Your task to perform on an android device: Go to ESPN.com Image 0: 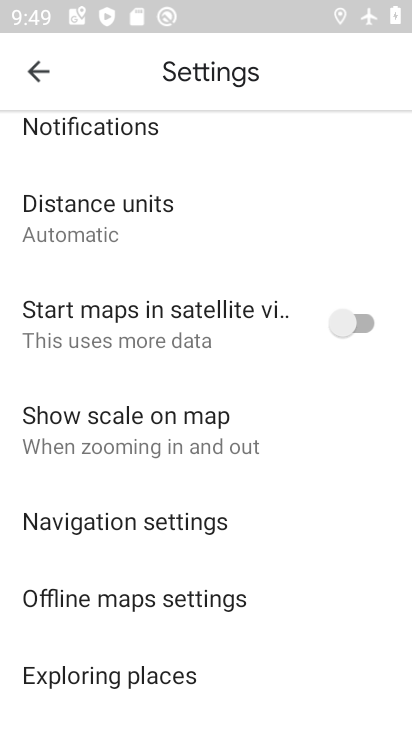
Step 0: press home button
Your task to perform on an android device: Go to ESPN.com Image 1: 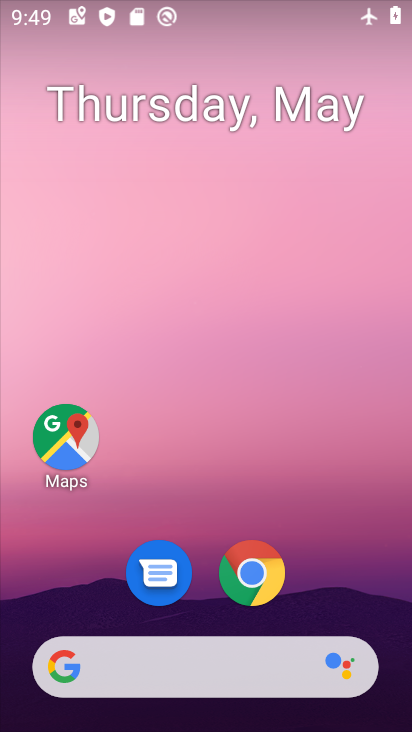
Step 1: click (232, 572)
Your task to perform on an android device: Go to ESPN.com Image 2: 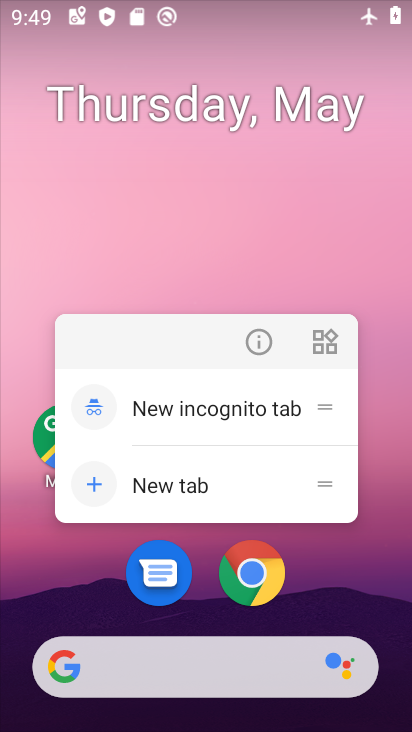
Step 2: click (260, 572)
Your task to perform on an android device: Go to ESPN.com Image 3: 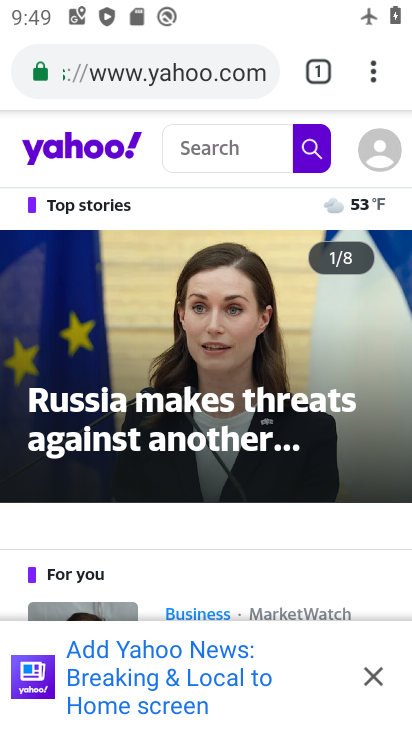
Step 3: click (307, 65)
Your task to perform on an android device: Go to ESPN.com Image 4: 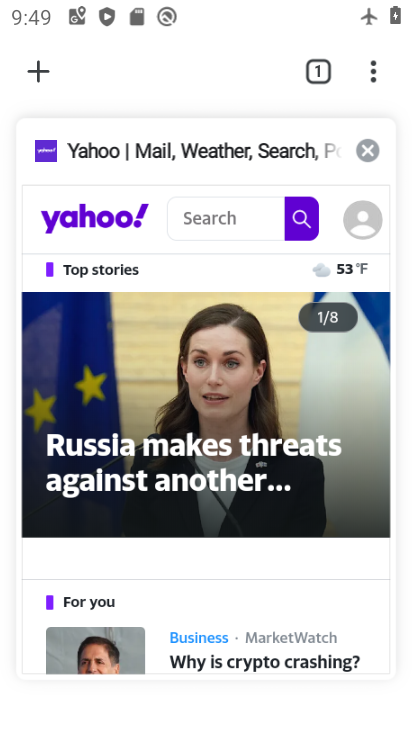
Step 4: click (43, 78)
Your task to perform on an android device: Go to ESPN.com Image 5: 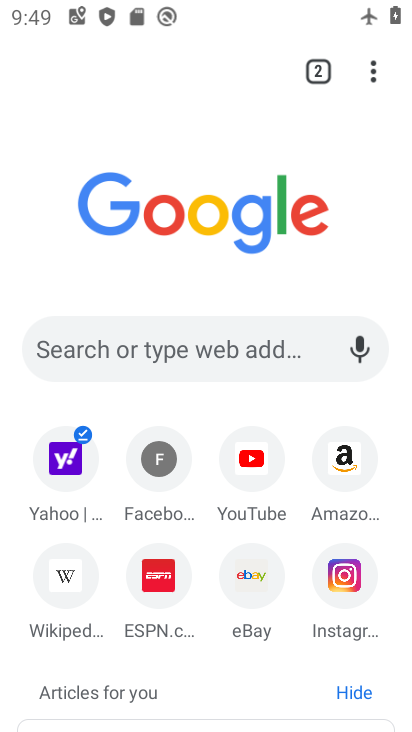
Step 5: click (142, 582)
Your task to perform on an android device: Go to ESPN.com Image 6: 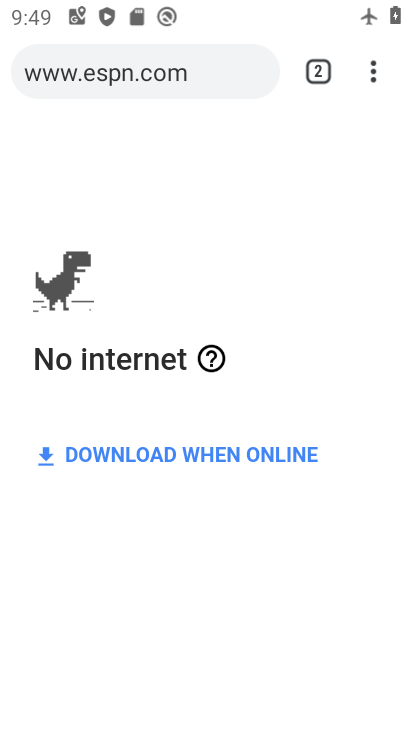
Step 6: task complete